Your task to perform on an android device: open a bookmark in the chrome app Image 0: 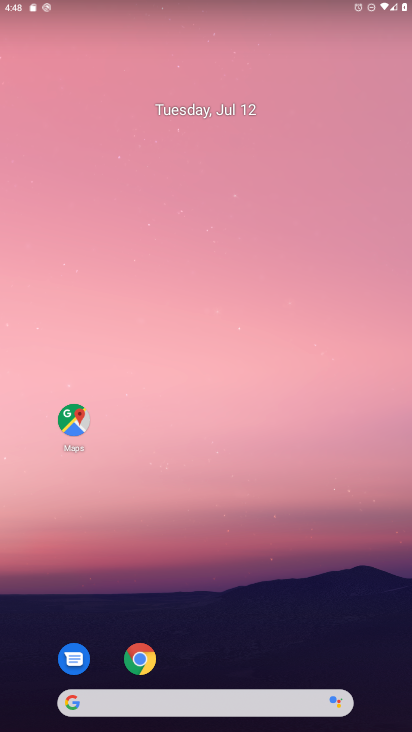
Step 0: click (142, 664)
Your task to perform on an android device: open a bookmark in the chrome app Image 1: 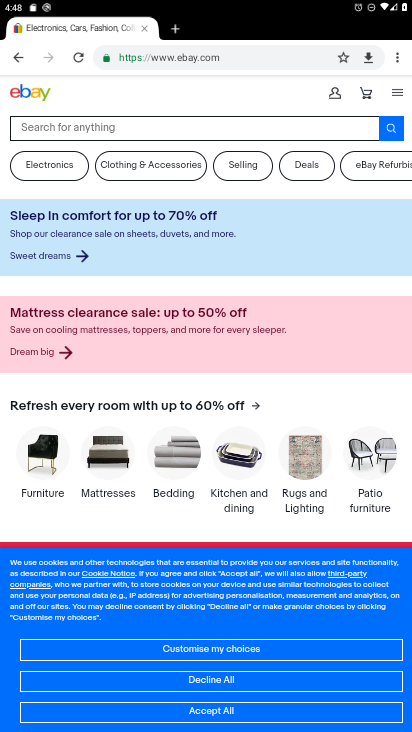
Step 1: click (399, 56)
Your task to perform on an android device: open a bookmark in the chrome app Image 2: 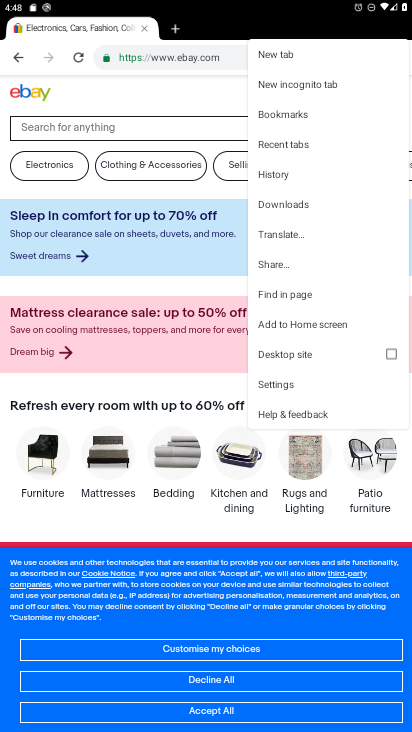
Step 2: click (296, 114)
Your task to perform on an android device: open a bookmark in the chrome app Image 3: 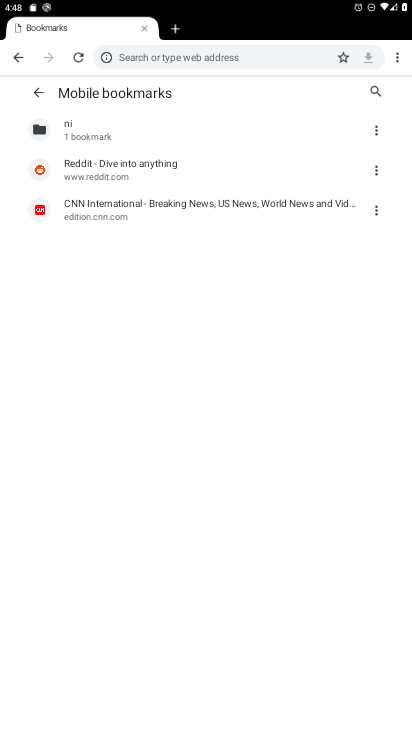
Step 3: click (123, 172)
Your task to perform on an android device: open a bookmark in the chrome app Image 4: 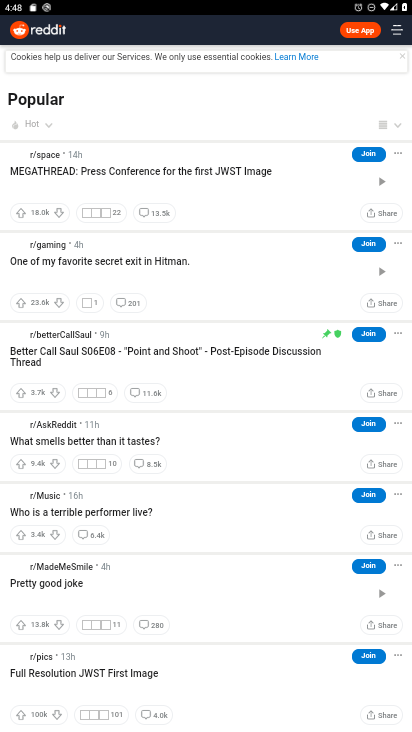
Step 4: task complete